Your task to perform on an android device: Open Youtube and go to "Your channel" Image 0: 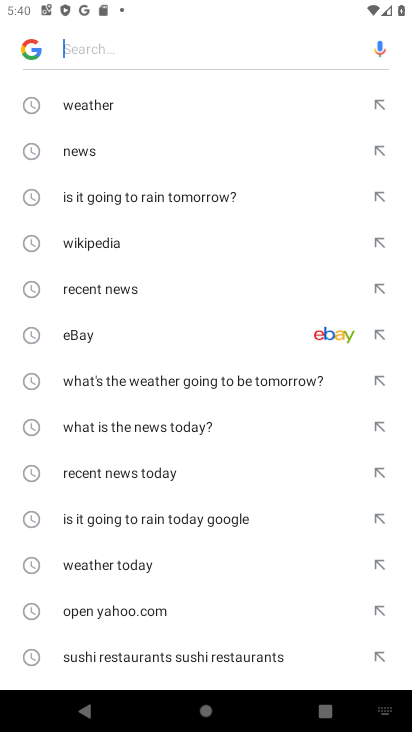
Step 0: press home button
Your task to perform on an android device: Open Youtube and go to "Your channel" Image 1: 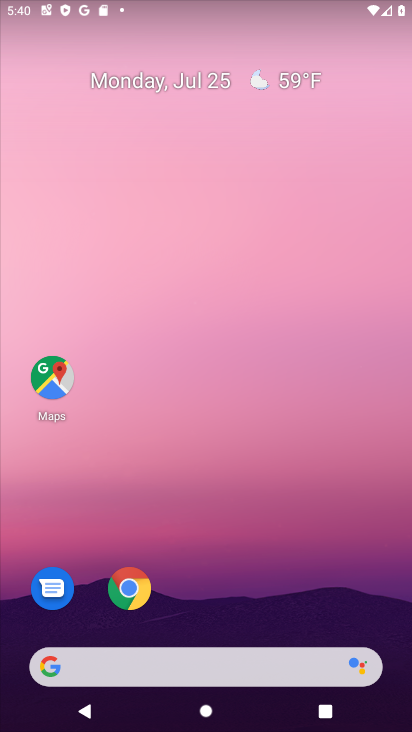
Step 1: drag from (343, 483) to (300, 28)
Your task to perform on an android device: Open Youtube and go to "Your channel" Image 2: 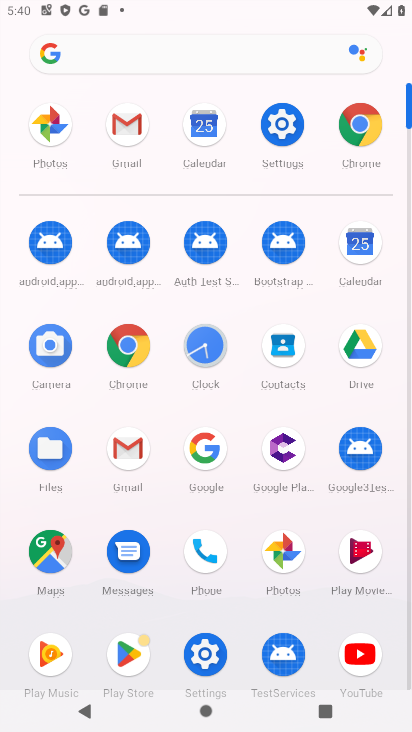
Step 2: click (355, 658)
Your task to perform on an android device: Open Youtube and go to "Your channel" Image 3: 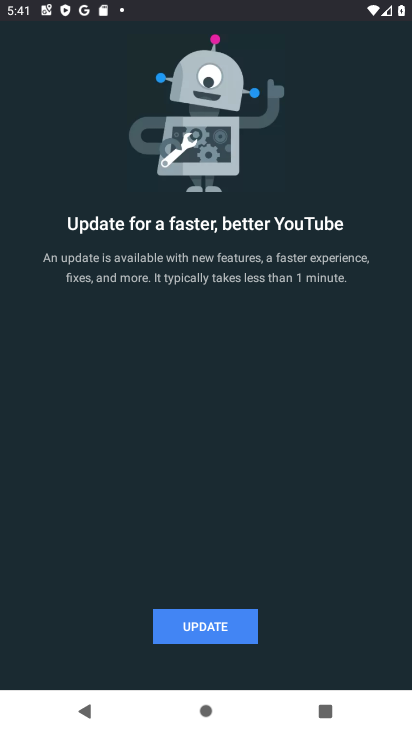
Step 3: task complete